Your task to perform on an android device: Search for logitech g933 on amazon, select the first entry, add it to the cart, then select checkout. Image 0: 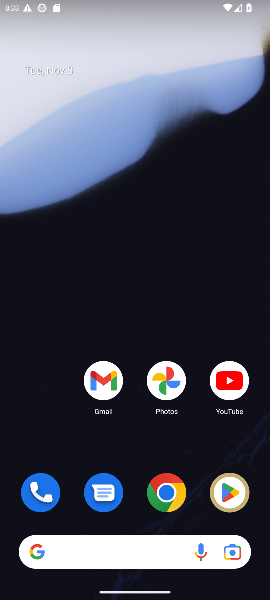
Step 0: click (166, 491)
Your task to perform on an android device: Search for logitech g933 on amazon, select the first entry, add it to the cart, then select checkout. Image 1: 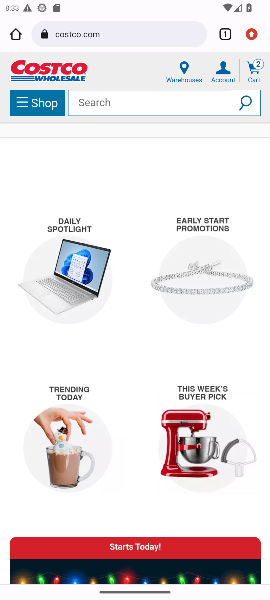
Step 1: click (147, 31)
Your task to perform on an android device: Search for logitech g933 on amazon, select the first entry, add it to the cart, then select checkout. Image 2: 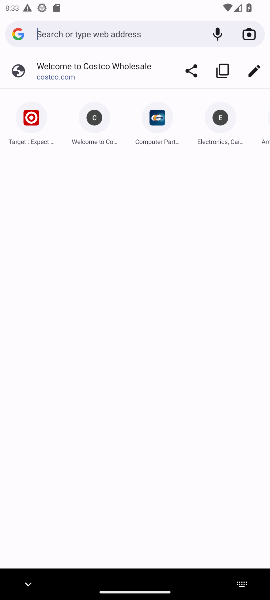
Step 2: type "amazon"
Your task to perform on an android device: Search for logitech g933 on amazon, select the first entry, add it to the cart, then select checkout. Image 3: 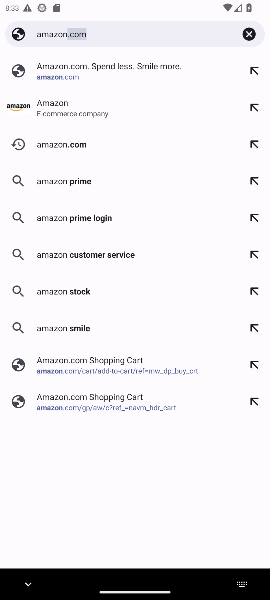
Step 3: click (77, 147)
Your task to perform on an android device: Search for logitech g933 on amazon, select the first entry, add it to the cart, then select checkout. Image 4: 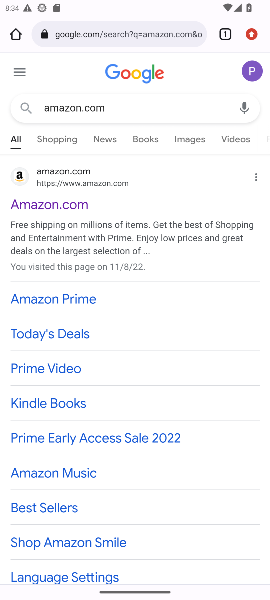
Step 4: click (72, 175)
Your task to perform on an android device: Search for logitech g933 on amazon, select the first entry, add it to the cart, then select checkout. Image 5: 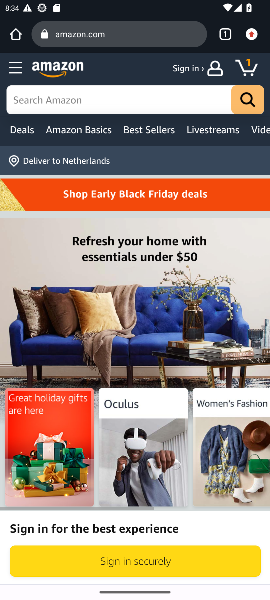
Step 5: click (180, 108)
Your task to perform on an android device: Search for logitech g933 on amazon, select the first entry, add it to the cart, then select checkout. Image 6: 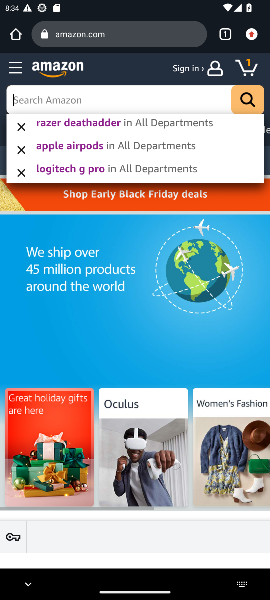
Step 6: type "logitech g933"
Your task to perform on an android device: Search for logitech g933 on amazon, select the first entry, add it to the cart, then select checkout. Image 7: 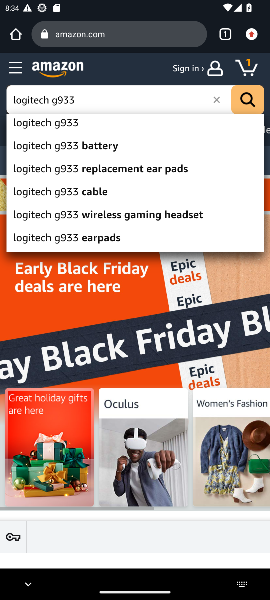
Step 7: click (62, 119)
Your task to perform on an android device: Search for logitech g933 on amazon, select the first entry, add it to the cart, then select checkout. Image 8: 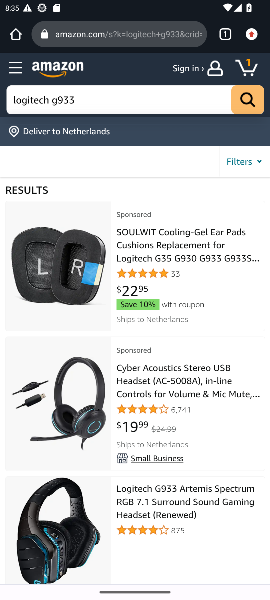
Step 8: drag from (66, 418) to (36, 166)
Your task to perform on an android device: Search for logitech g933 on amazon, select the first entry, add it to the cart, then select checkout. Image 9: 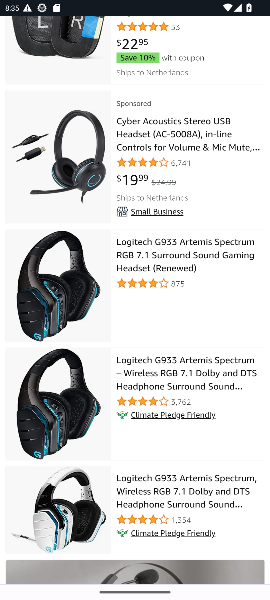
Step 9: click (35, 295)
Your task to perform on an android device: Search for logitech g933 on amazon, select the first entry, add it to the cart, then select checkout. Image 10: 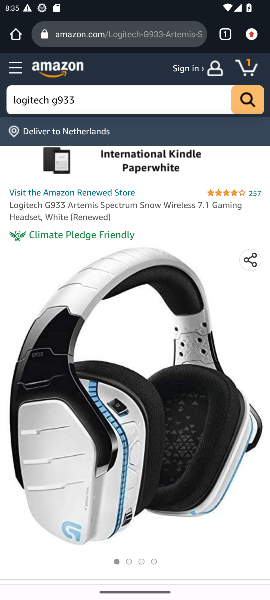
Step 10: drag from (139, 453) to (179, 281)
Your task to perform on an android device: Search for logitech g933 on amazon, select the first entry, add it to the cart, then select checkout. Image 11: 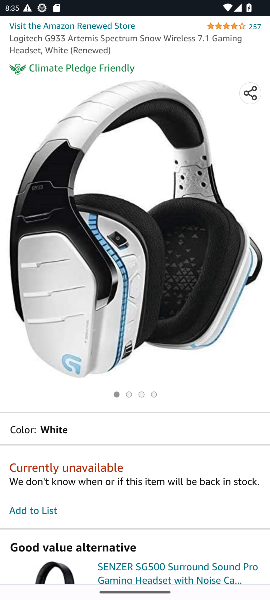
Step 11: drag from (154, 372) to (175, 192)
Your task to perform on an android device: Search for logitech g933 on amazon, select the first entry, add it to the cart, then select checkout. Image 12: 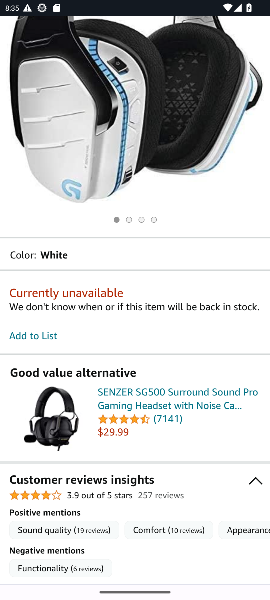
Step 12: drag from (175, 444) to (183, 197)
Your task to perform on an android device: Search for logitech g933 on amazon, select the first entry, add it to the cart, then select checkout. Image 13: 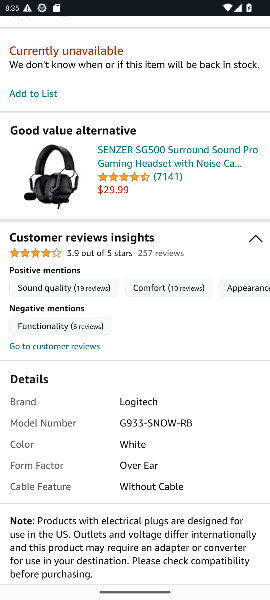
Step 13: drag from (192, 416) to (214, 190)
Your task to perform on an android device: Search for logitech g933 on amazon, select the first entry, add it to the cart, then select checkout. Image 14: 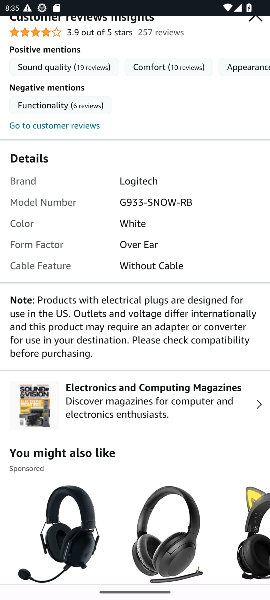
Step 14: drag from (189, 422) to (181, 168)
Your task to perform on an android device: Search for logitech g933 on amazon, select the first entry, add it to the cart, then select checkout. Image 15: 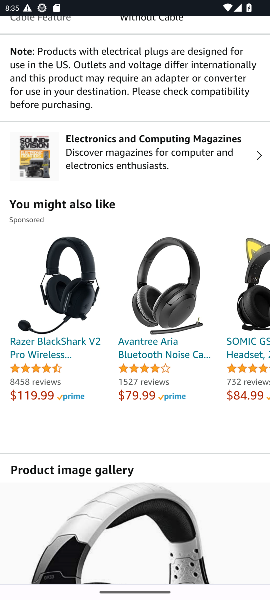
Step 15: press back button
Your task to perform on an android device: Search for logitech g933 on amazon, select the first entry, add it to the cart, then select checkout. Image 16: 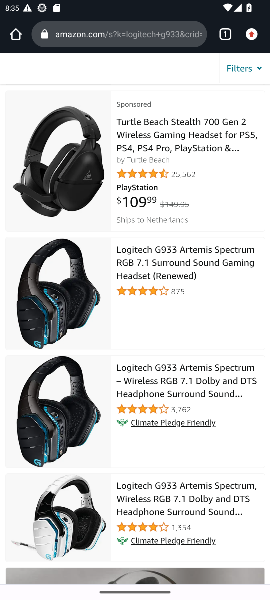
Step 16: click (55, 513)
Your task to perform on an android device: Search for logitech g933 on amazon, select the first entry, add it to the cart, then select checkout. Image 17: 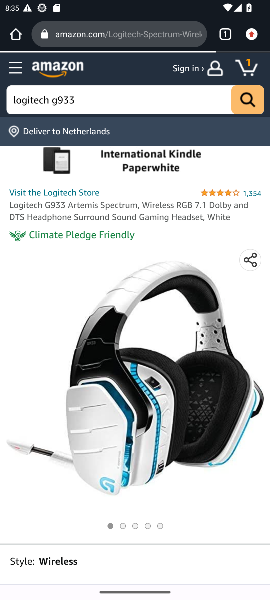
Step 17: drag from (195, 425) to (190, 207)
Your task to perform on an android device: Search for logitech g933 on amazon, select the first entry, add it to the cart, then select checkout. Image 18: 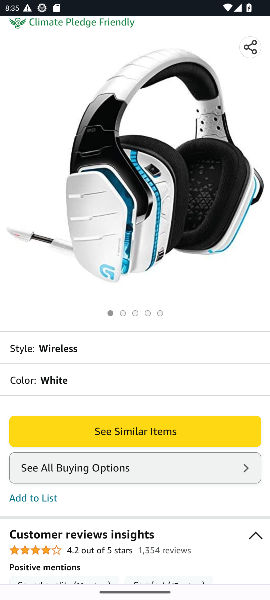
Step 18: press back button
Your task to perform on an android device: Search for logitech g933 on amazon, select the first entry, add it to the cart, then select checkout. Image 19: 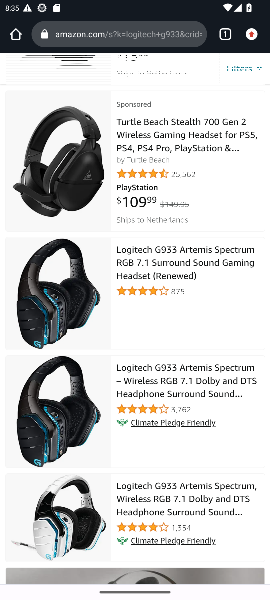
Step 19: drag from (82, 518) to (47, 294)
Your task to perform on an android device: Search for logitech g933 on amazon, select the first entry, add it to the cart, then select checkout. Image 20: 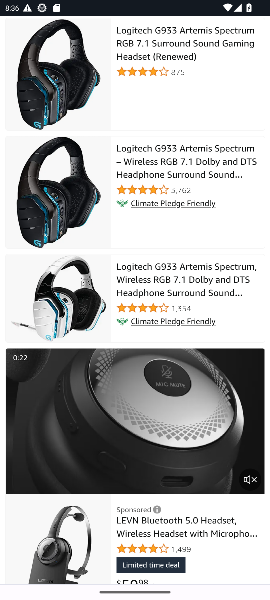
Step 20: drag from (82, 165) to (84, 416)
Your task to perform on an android device: Search for logitech g933 on amazon, select the first entry, add it to the cart, then select checkout. Image 21: 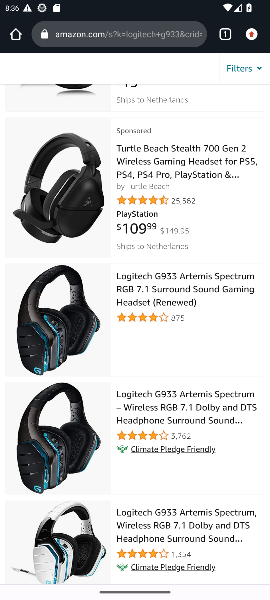
Step 21: click (46, 304)
Your task to perform on an android device: Search for logitech g933 on amazon, select the first entry, add it to the cart, then select checkout. Image 22: 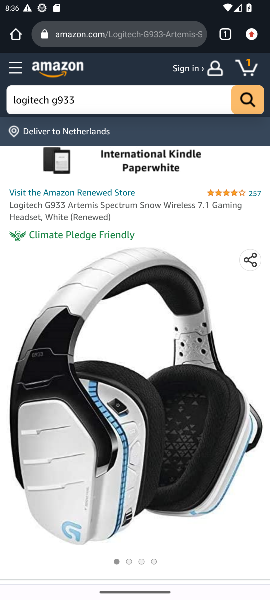
Step 22: drag from (141, 418) to (173, 194)
Your task to perform on an android device: Search for logitech g933 on amazon, select the first entry, add it to the cart, then select checkout. Image 23: 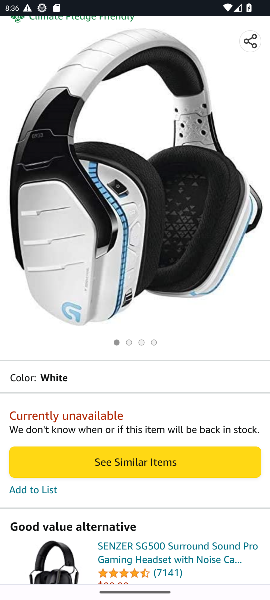
Step 23: press back button
Your task to perform on an android device: Search for logitech g933 on amazon, select the first entry, add it to the cart, then select checkout. Image 24: 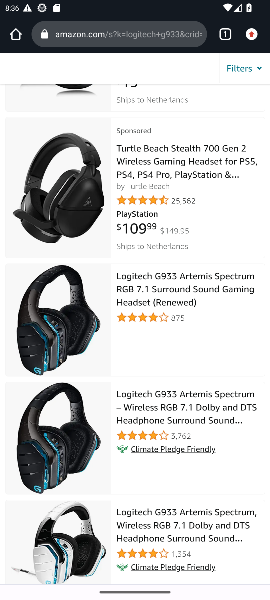
Step 24: click (33, 315)
Your task to perform on an android device: Search for logitech g933 on amazon, select the first entry, add it to the cart, then select checkout. Image 25: 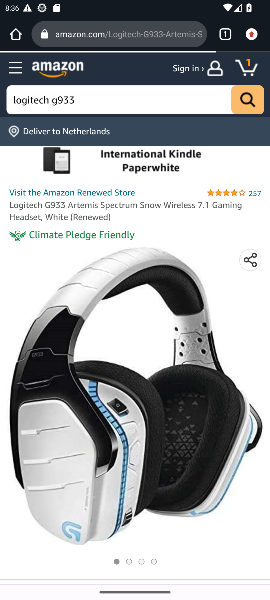
Step 25: drag from (161, 440) to (135, 134)
Your task to perform on an android device: Search for logitech g933 on amazon, select the first entry, add it to the cart, then select checkout. Image 26: 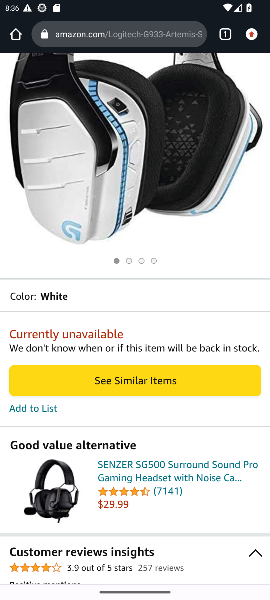
Step 26: press back button
Your task to perform on an android device: Search for logitech g933 on amazon, select the first entry, add it to the cart, then select checkout. Image 27: 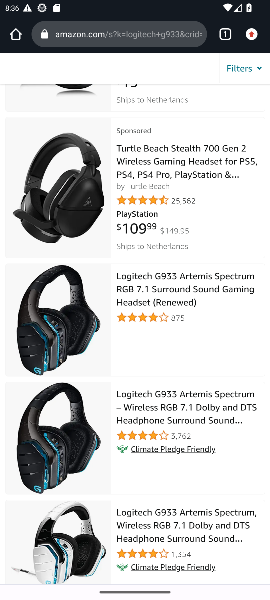
Step 27: click (70, 299)
Your task to perform on an android device: Search for logitech g933 on amazon, select the first entry, add it to the cart, then select checkout. Image 28: 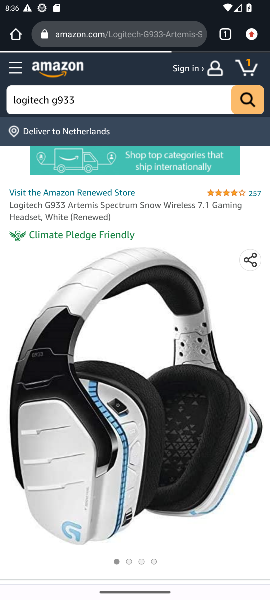
Step 28: drag from (203, 490) to (267, 287)
Your task to perform on an android device: Search for logitech g933 on amazon, select the first entry, add it to the cart, then select checkout. Image 29: 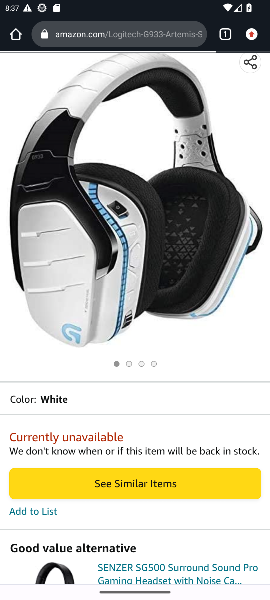
Step 29: press back button
Your task to perform on an android device: Search for logitech g933 on amazon, select the first entry, add it to the cart, then select checkout. Image 30: 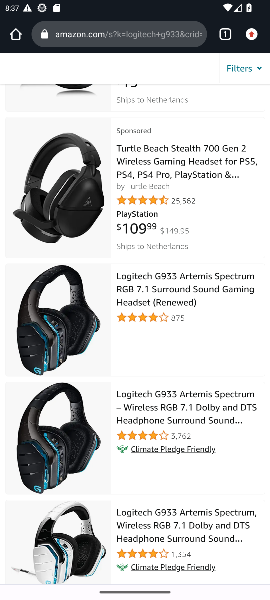
Step 30: drag from (170, 487) to (256, 176)
Your task to perform on an android device: Search for logitech g933 on amazon, select the first entry, add it to the cart, then select checkout. Image 31: 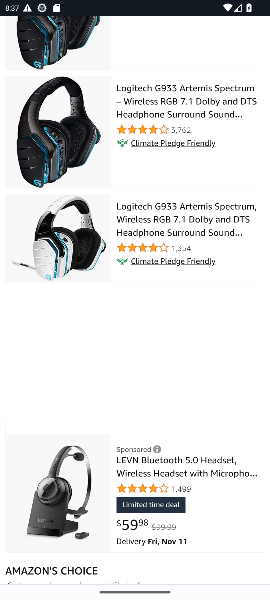
Step 31: drag from (212, 475) to (260, 241)
Your task to perform on an android device: Search for logitech g933 on amazon, select the first entry, add it to the cart, then select checkout. Image 32: 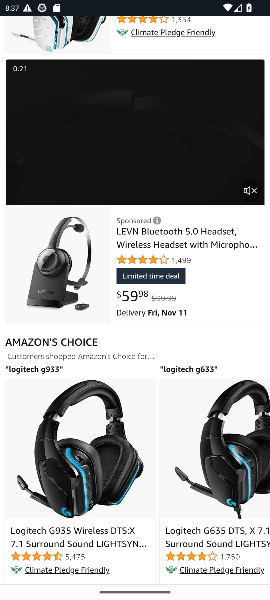
Step 32: drag from (94, 497) to (207, 211)
Your task to perform on an android device: Search for logitech g933 on amazon, select the first entry, add it to the cart, then select checkout. Image 33: 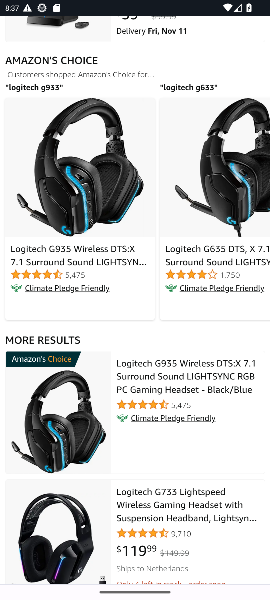
Step 33: click (57, 426)
Your task to perform on an android device: Search for logitech g933 on amazon, select the first entry, add it to the cart, then select checkout. Image 34: 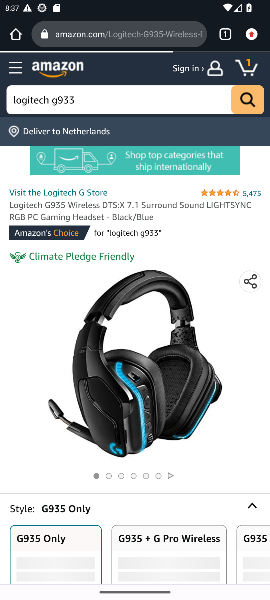
Step 34: task complete